Your task to perform on an android device: check the backup settings in the google photos Image 0: 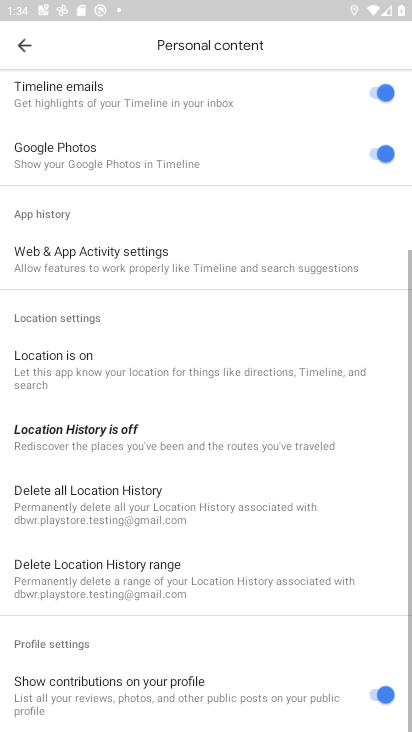
Step 0: press home button
Your task to perform on an android device: check the backup settings in the google photos Image 1: 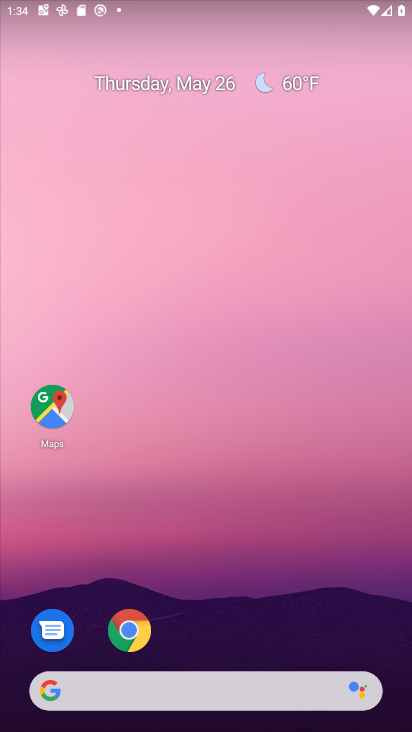
Step 1: drag from (348, 598) to (351, 78)
Your task to perform on an android device: check the backup settings in the google photos Image 2: 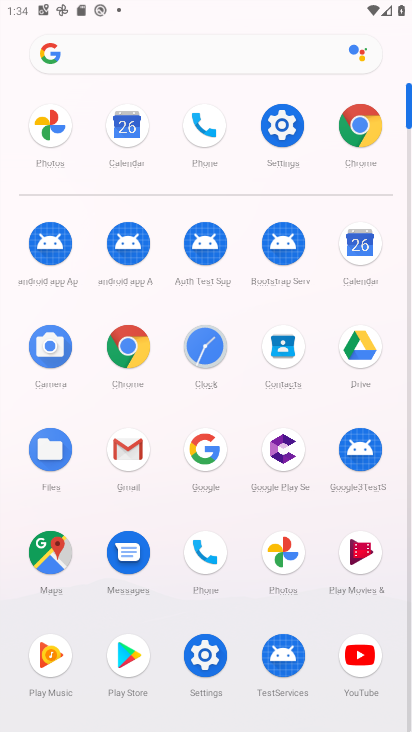
Step 2: click (275, 559)
Your task to perform on an android device: check the backup settings in the google photos Image 3: 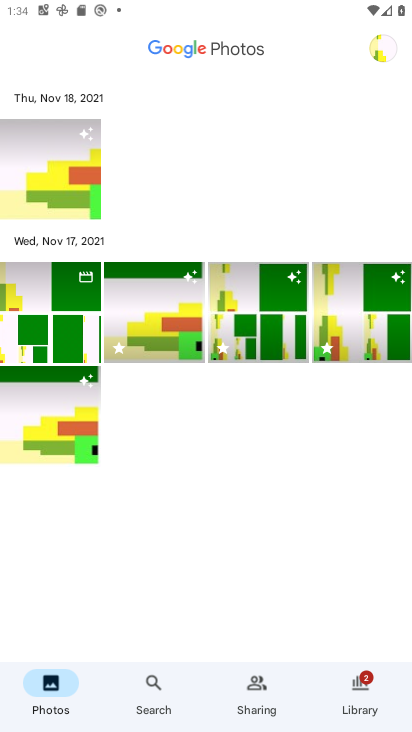
Step 3: click (383, 49)
Your task to perform on an android device: check the backup settings in the google photos Image 4: 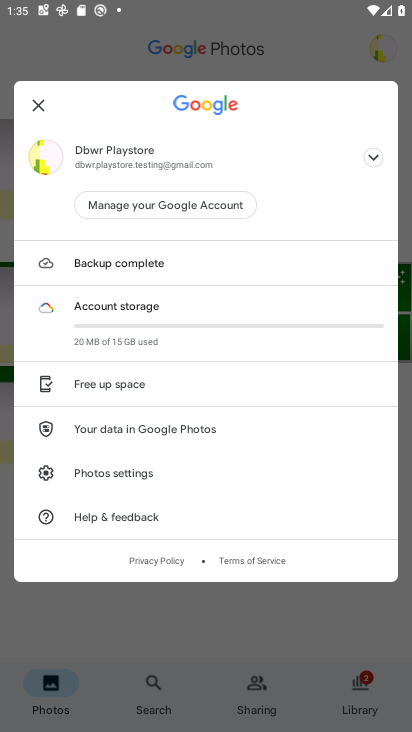
Step 4: drag from (148, 471) to (135, 164)
Your task to perform on an android device: check the backup settings in the google photos Image 5: 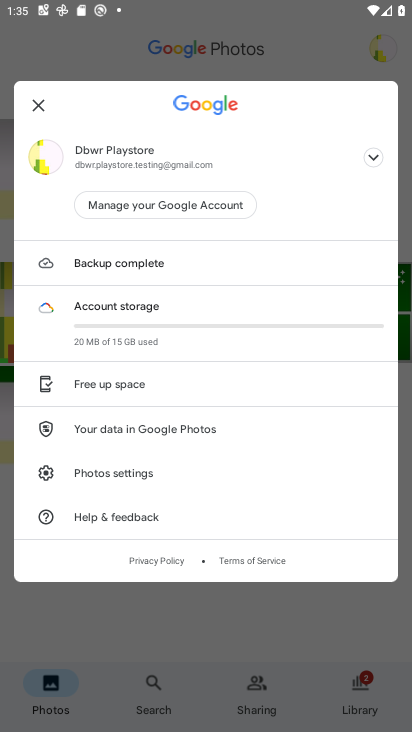
Step 5: drag from (102, 478) to (105, 155)
Your task to perform on an android device: check the backup settings in the google photos Image 6: 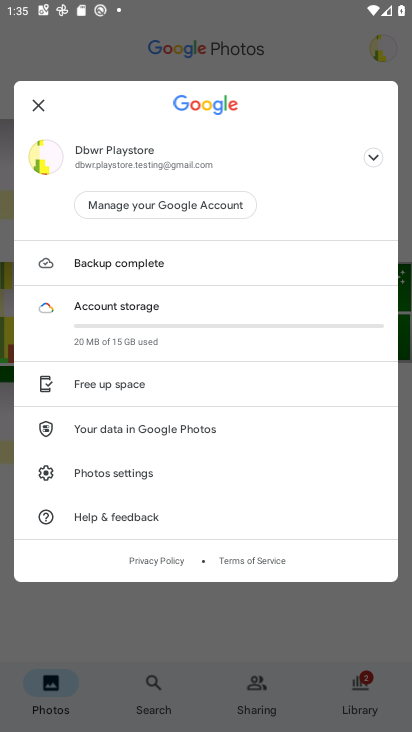
Step 6: drag from (132, 479) to (143, 227)
Your task to perform on an android device: check the backup settings in the google photos Image 7: 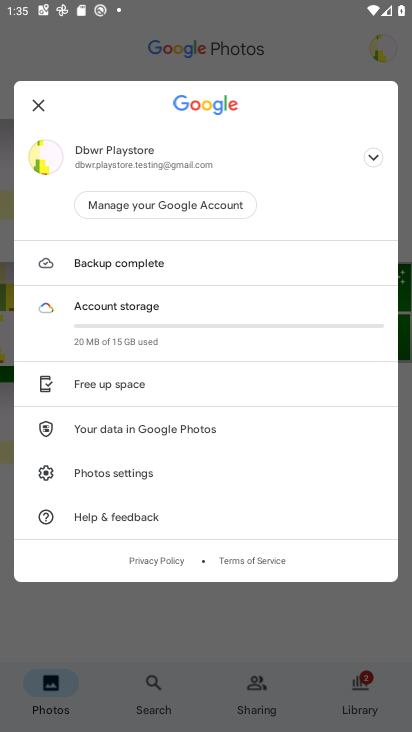
Step 7: click (132, 273)
Your task to perform on an android device: check the backup settings in the google photos Image 8: 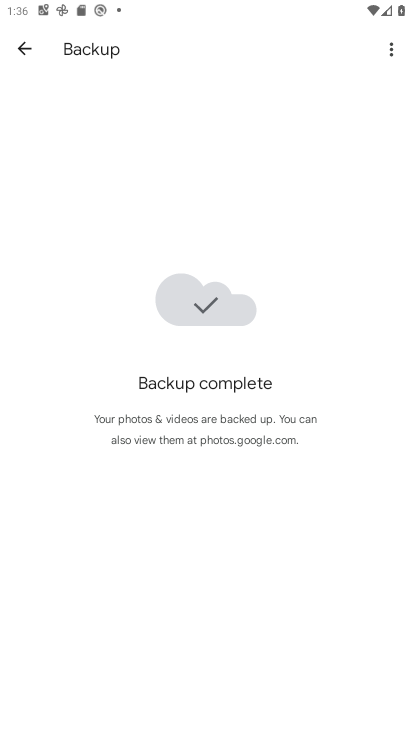
Step 8: task complete